Your task to perform on an android device: Show me the alarms in the clock app Image 0: 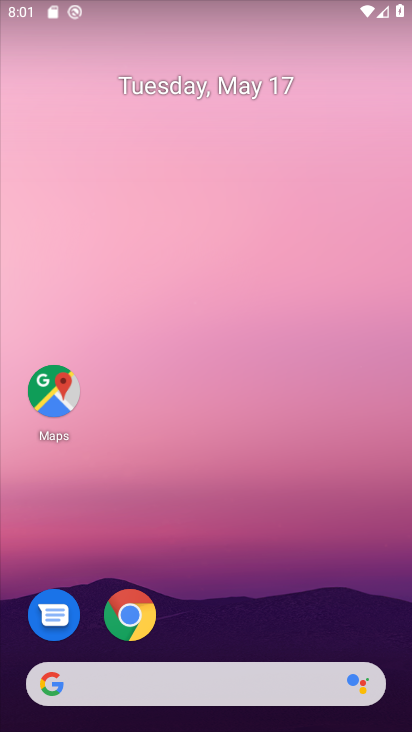
Step 0: drag from (294, 566) to (310, 125)
Your task to perform on an android device: Show me the alarms in the clock app Image 1: 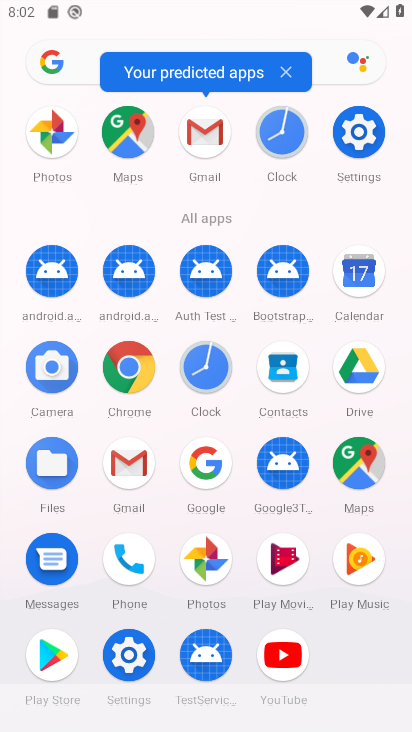
Step 1: click (282, 141)
Your task to perform on an android device: Show me the alarms in the clock app Image 2: 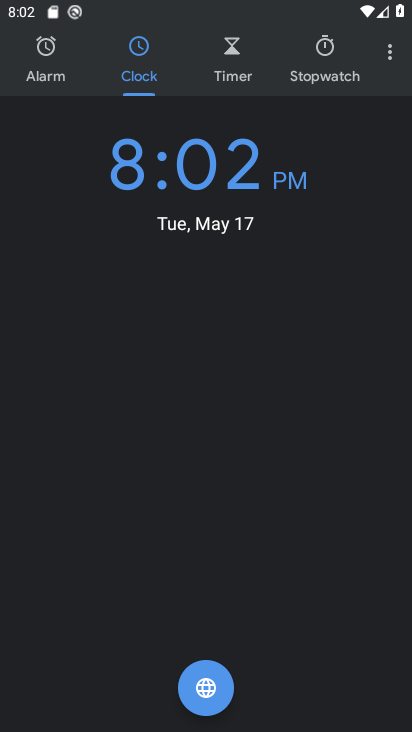
Step 2: click (49, 67)
Your task to perform on an android device: Show me the alarms in the clock app Image 3: 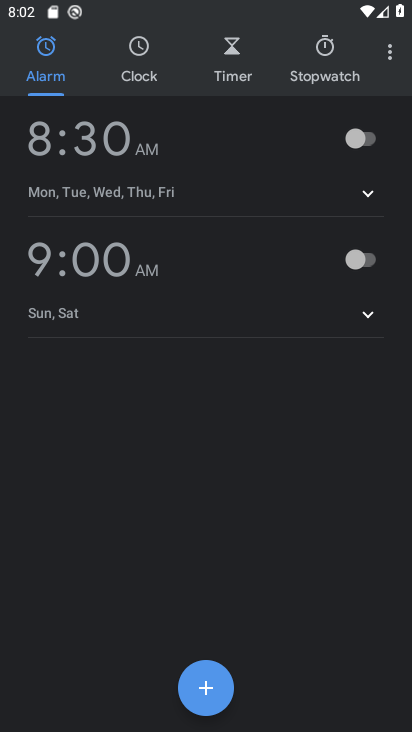
Step 3: task complete